Your task to perform on an android device: open device folders in google photos Image 0: 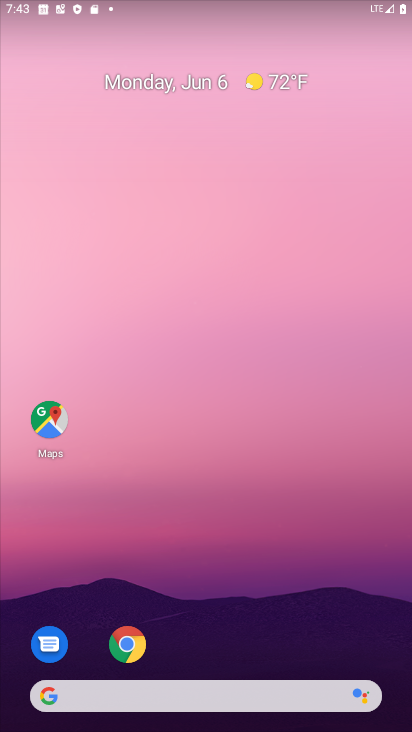
Step 0: drag from (245, 718) to (145, 195)
Your task to perform on an android device: open device folders in google photos Image 1: 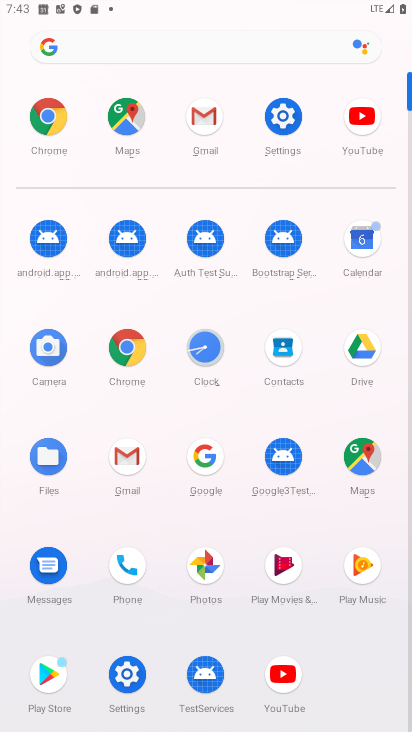
Step 1: click (218, 570)
Your task to perform on an android device: open device folders in google photos Image 2: 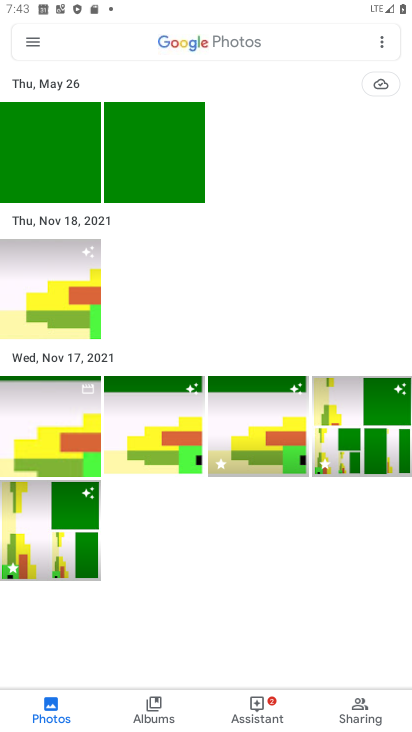
Step 2: click (22, 48)
Your task to perform on an android device: open device folders in google photos Image 3: 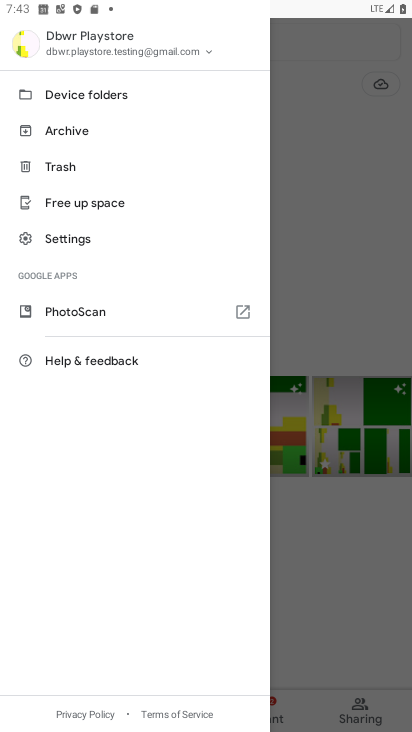
Step 3: click (116, 104)
Your task to perform on an android device: open device folders in google photos Image 4: 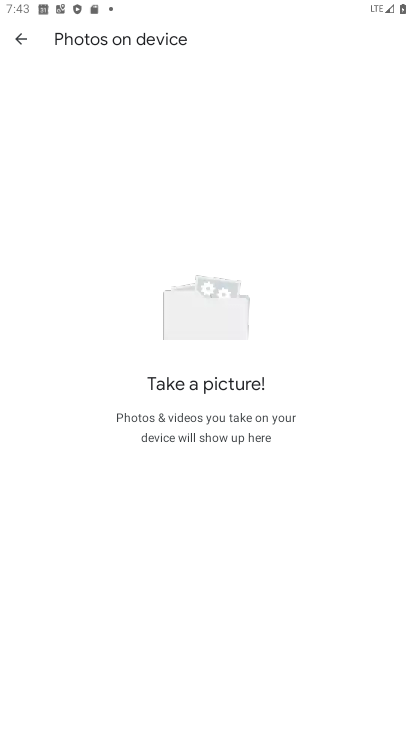
Step 4: task complete